Your task to perform on an android device: turn on notifications settings in the gmail app Image 0: 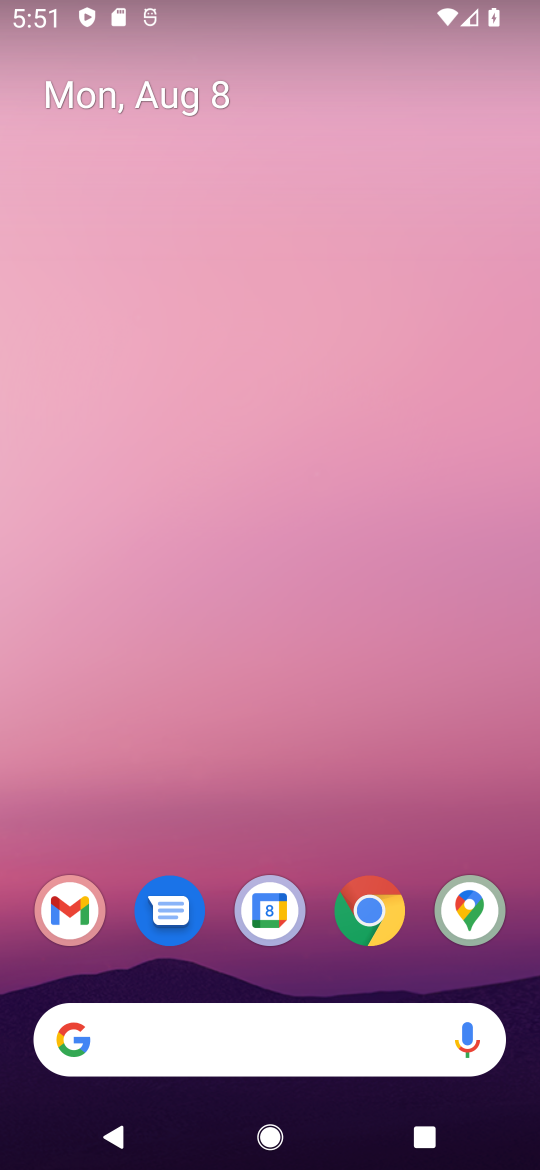
Step 0: drag from (229, 1046) to (288, 483)
Your task to perform on an android device: turn on notifications settings in the gmail app Image 1: 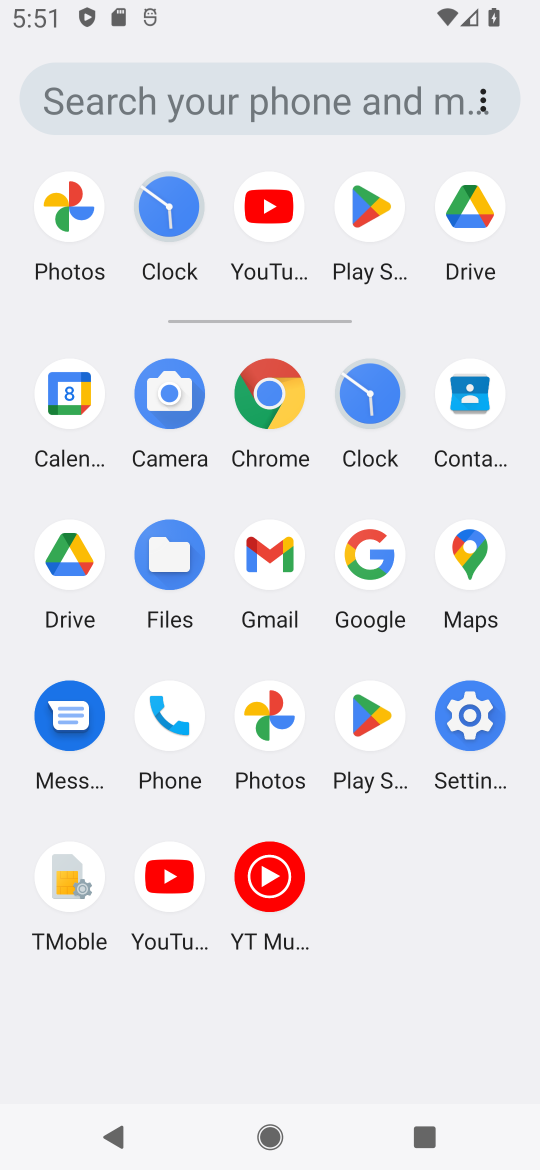
Step 1: click (276, 551)
Your task to perform on an android device: turn on notifications settings in the gmail app Image 2: 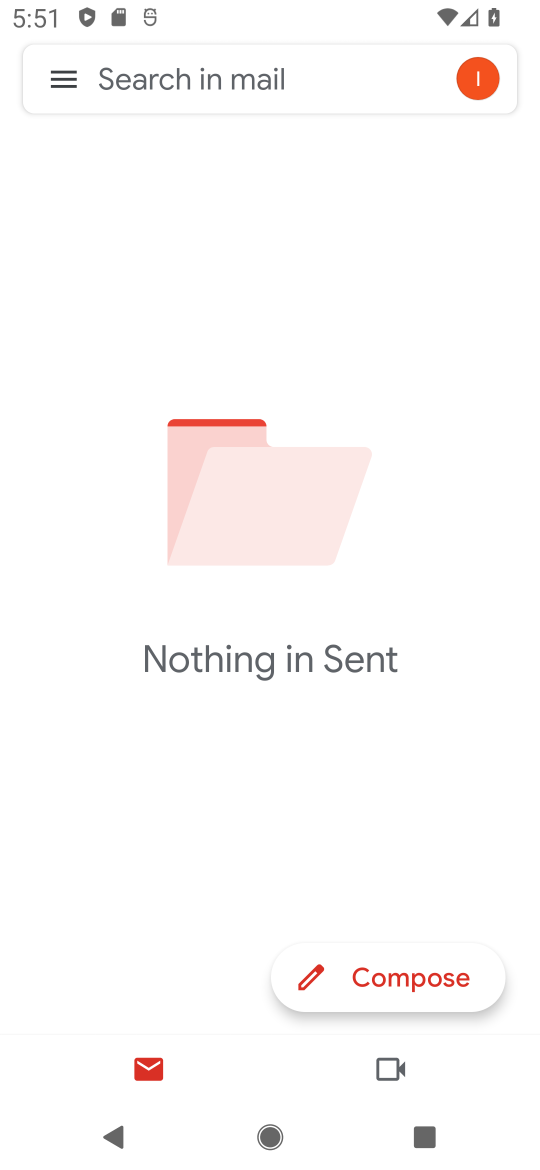
Step 2: click (51, 84)
Your task to perform on an android device: turn on notifications settings in the gmail app Image 3: 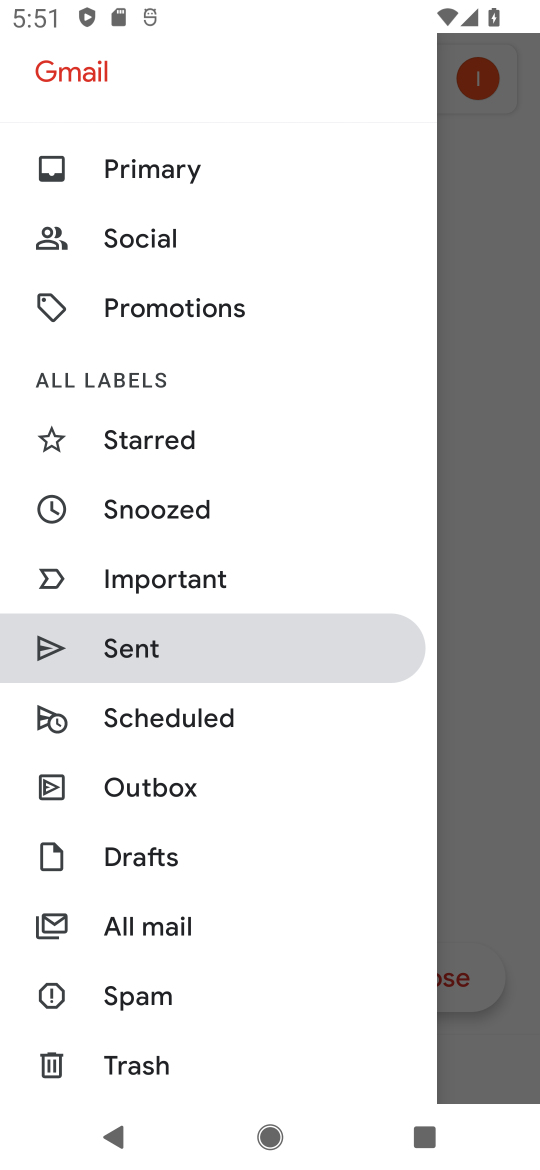
Step 3: drag from (124, 838) to (197, 696)
Your task to perform on an android device: turn on notifications settings in the gmail app Image 4: 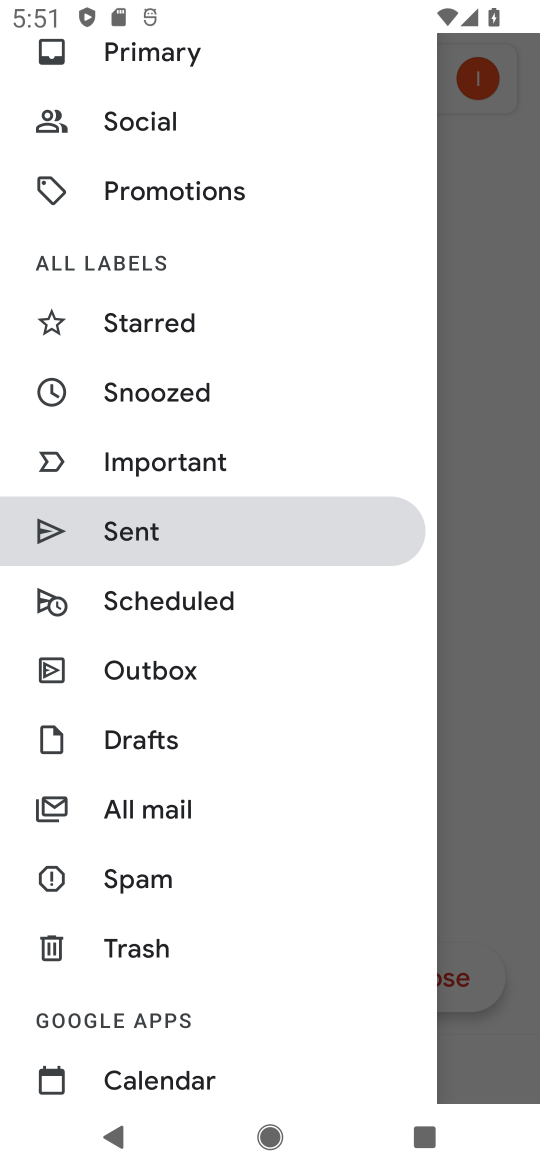
Step 4: drag from (131, 892) to (221, 705)
Your task to perform on an android device: turn on notifications settings in the gmail app Image 5: 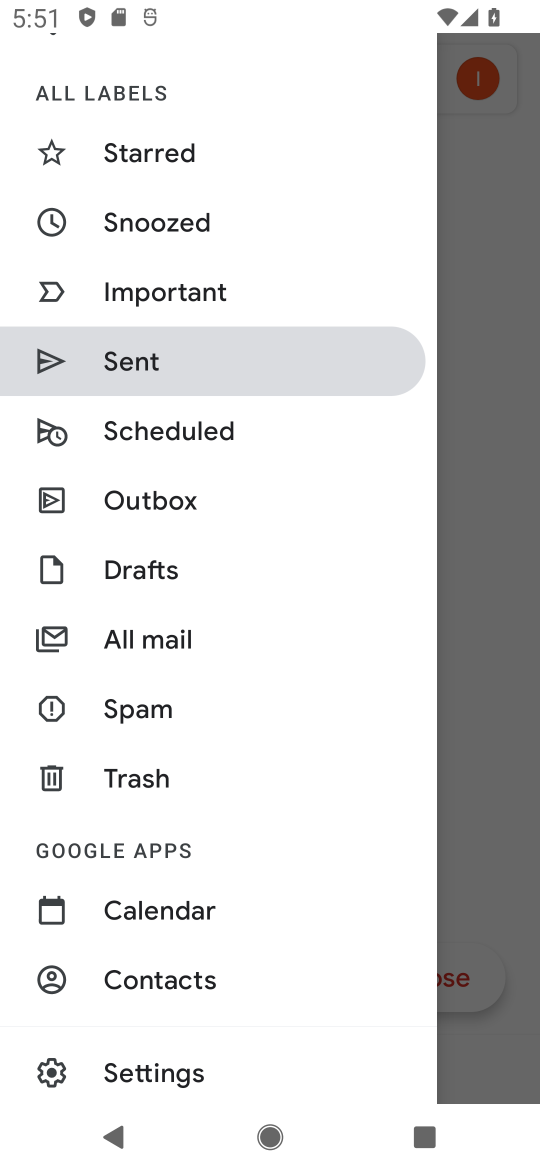
Step 5: drag from (135, 962) to (221, 807)
Your task to perform on an android device: turn on notifications settings in the gmail app Image 6: 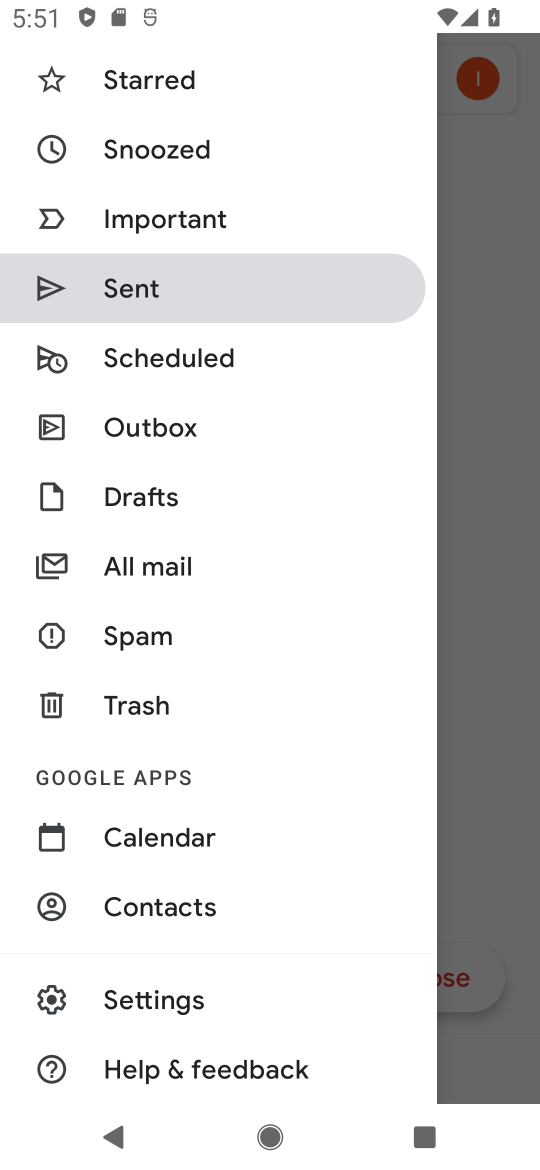
Step 6: click (130, 997)
Your task to perform on an android device: turn on notifications settings in the gmail app Image 7: 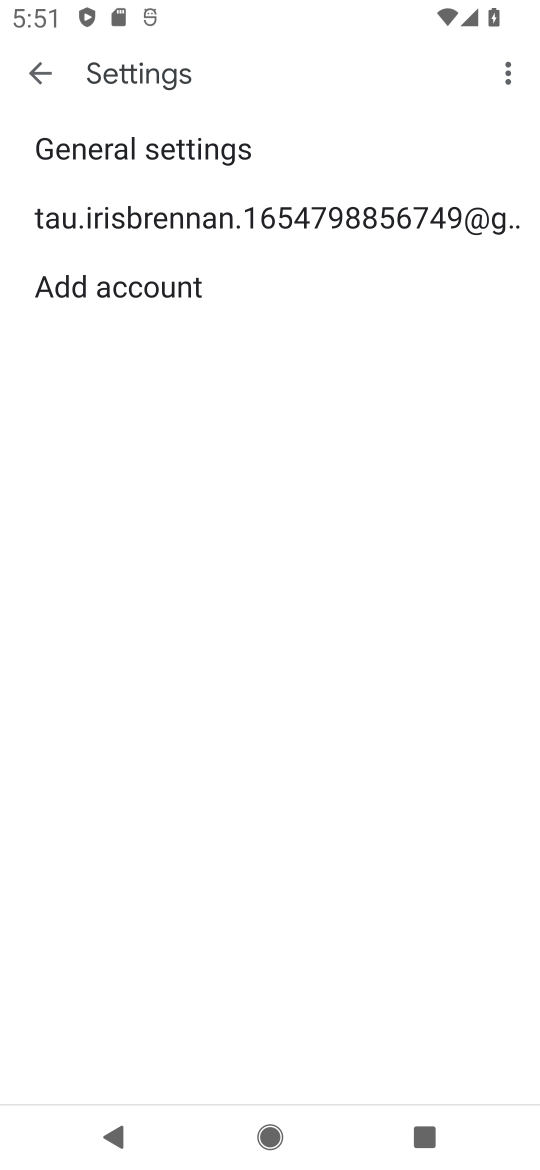
Step 7: click (184, 212)
Your task to perform on an android device: turn on notifications settings in the gmail app Image 8: 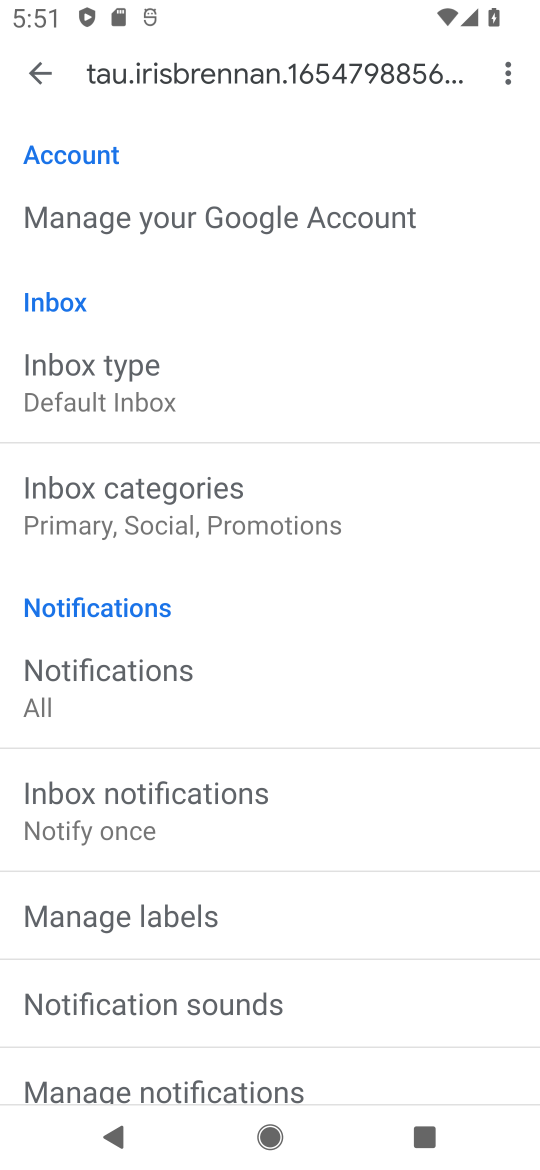
Step 8: drag from (144, 907) to (212, 760)
Your task to perform on an android device: turn on notifications settings in the gmail app Image 9: 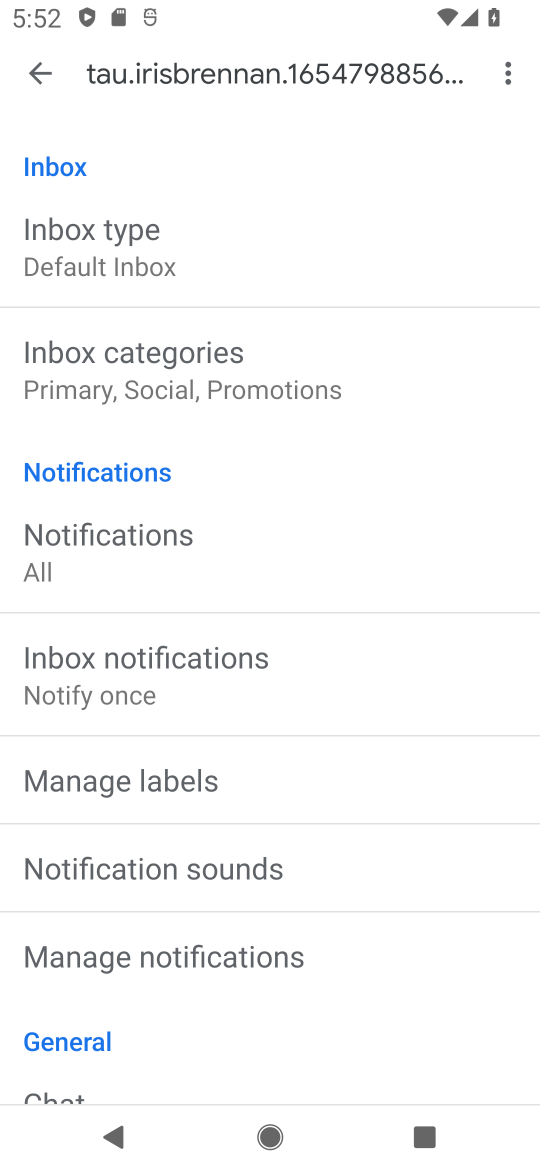
Step 9: click (200, 961)
Your task to perform on an android device: turn on notifications settings in the gmail app Image 10: 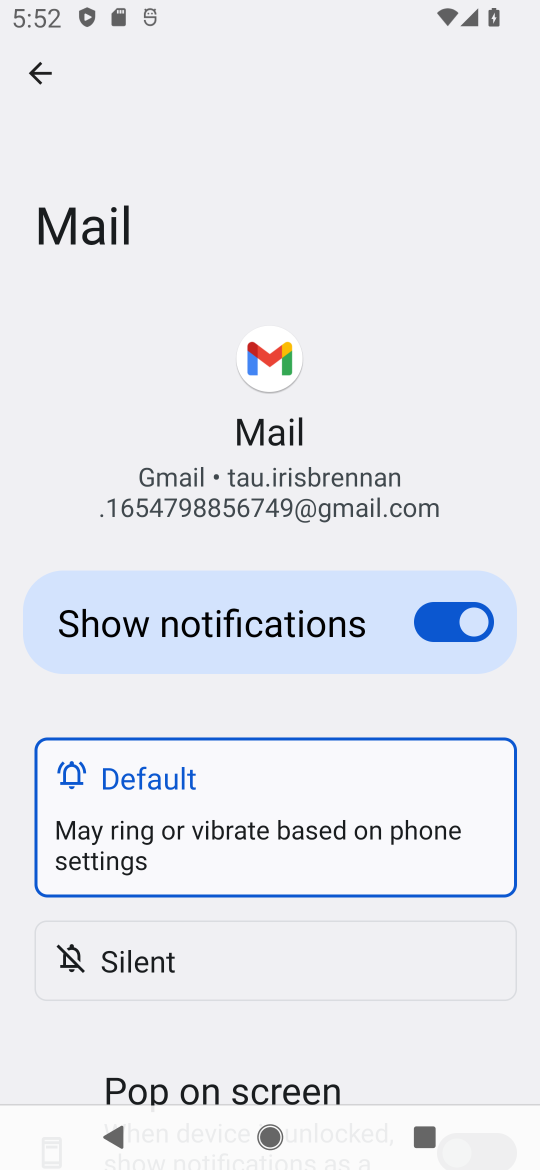
Step 10: task complete